Your task to perform on an android device: all mails in gmail Image 0: 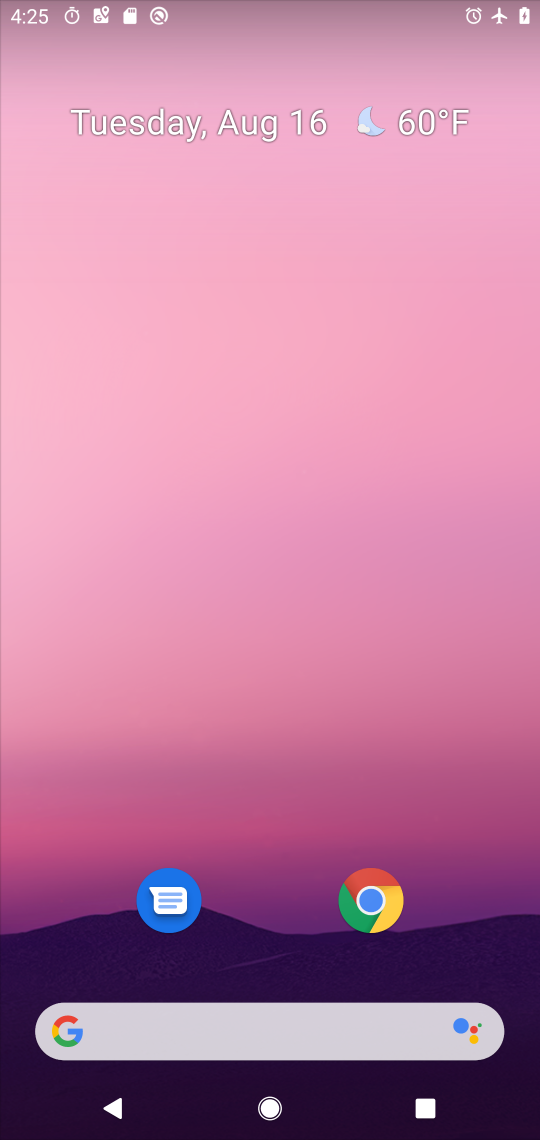
Step 0: drag from (281, 978) to (260, 22)
Your task to perform on an android device: all mails in gmail Image 1: 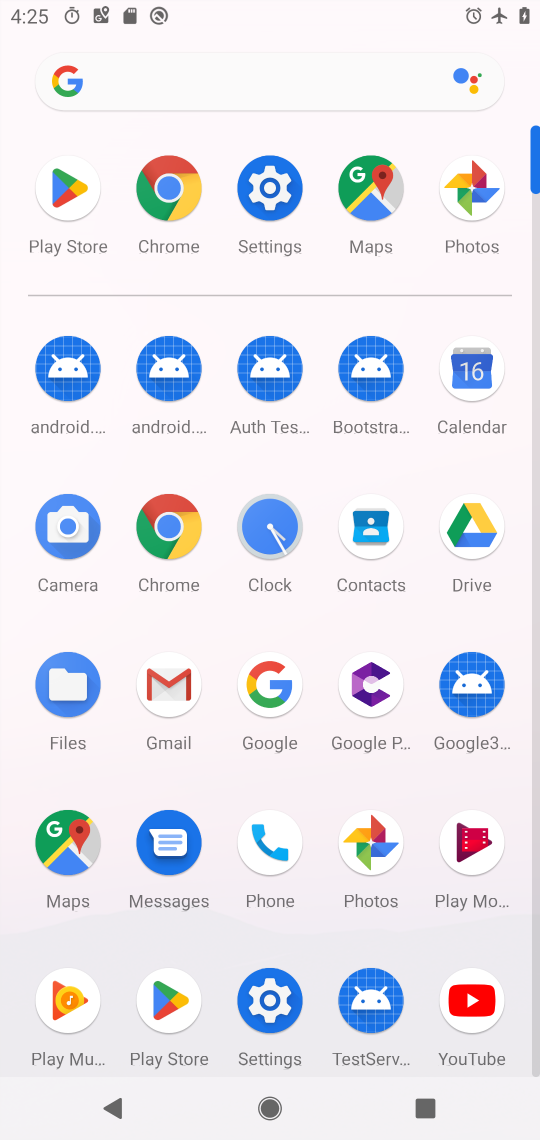
Step 1: click (172, 689)
Your task to perform on an android device: all mails in gmail Image 2: 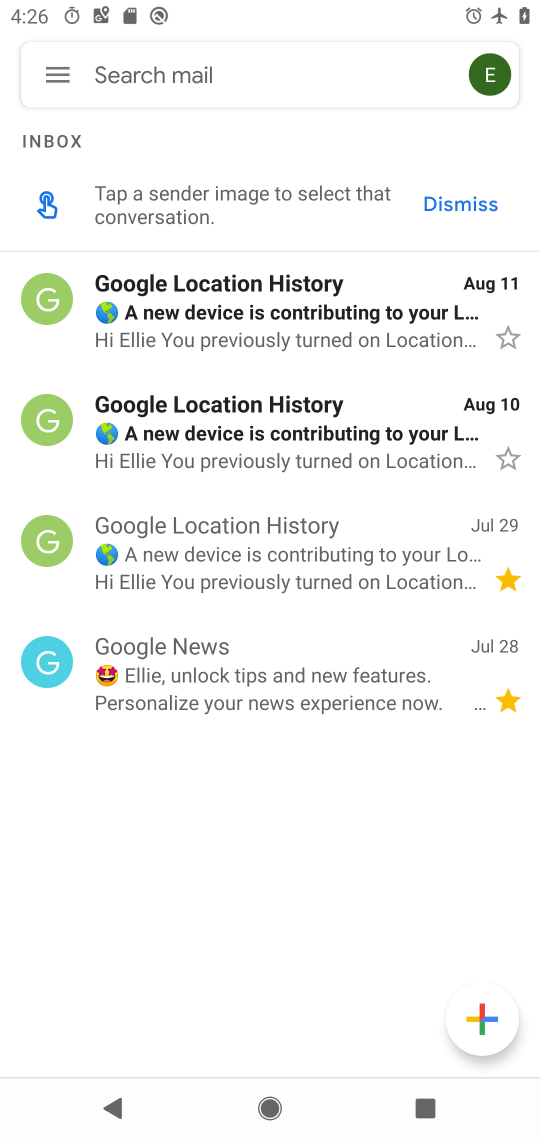
Step 2: click (60, 71)
Your task to perform on an android device: all mails in gmail Image 3: 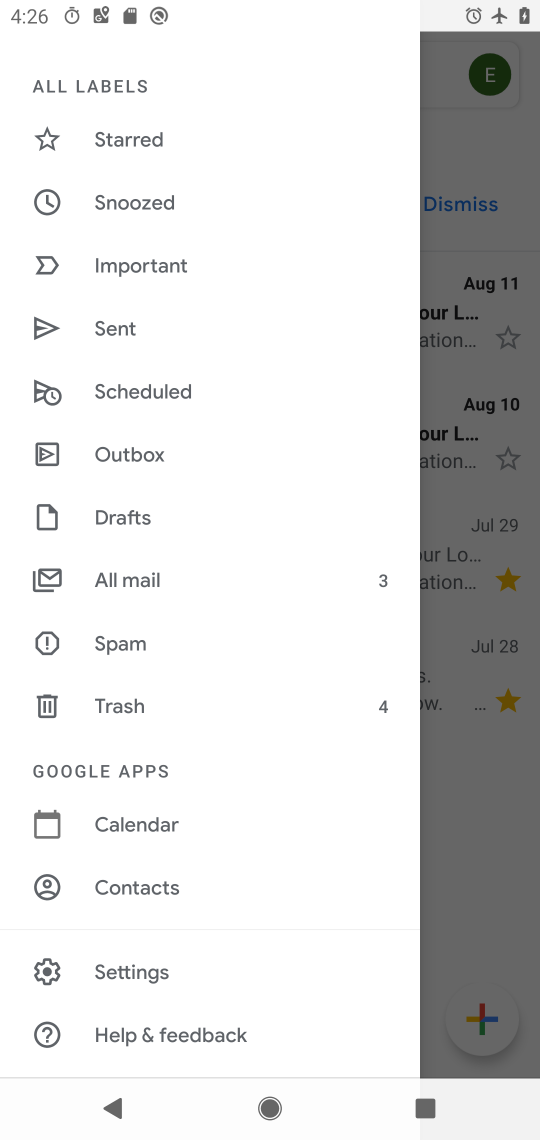
Step 3: click (146, 569)
Your task to perform on an android device: all mails in gmail Image 4: 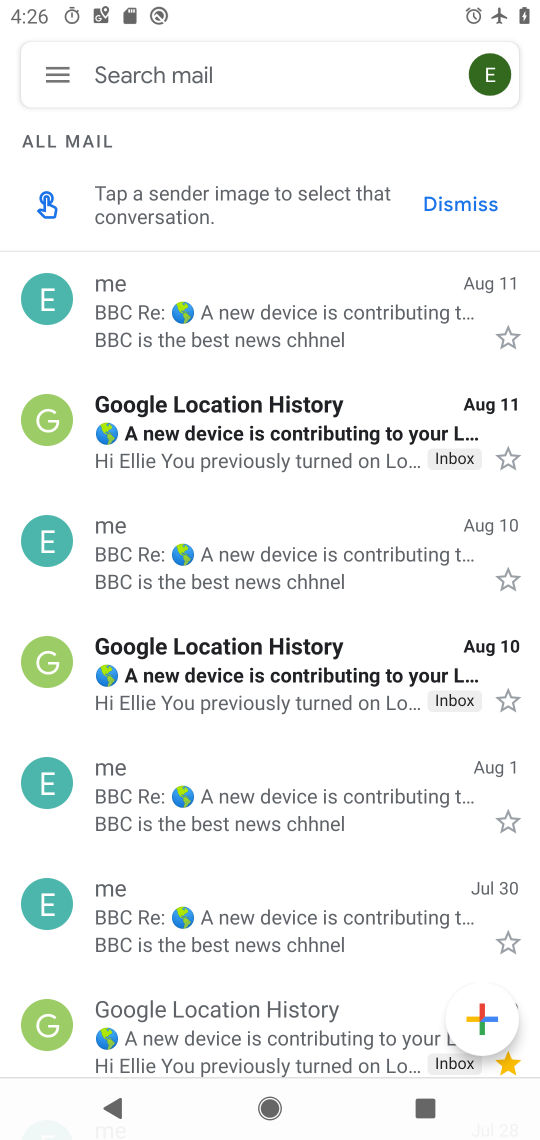
Step 4: task complete